Your task to perform on an android device: check out phone information Image 0: 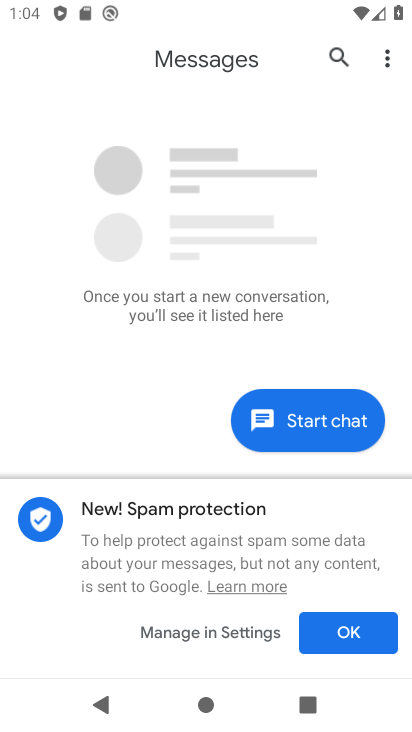
Step 0: press home button
Your task to perform on an android device: check out phone information Image 1: 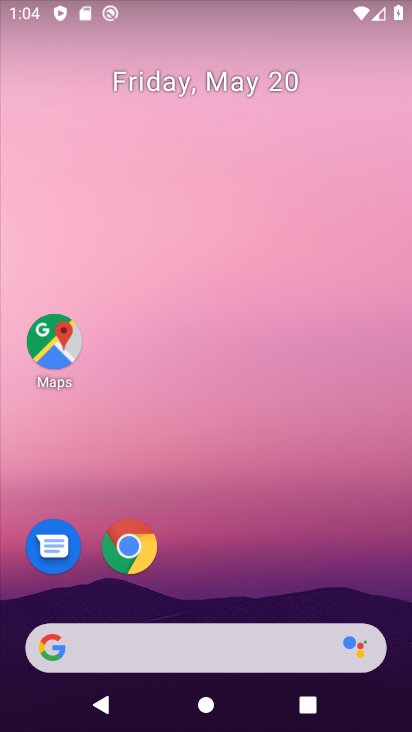
Step 1: drag from (88, 454) to (249, 112)
Your task to perform on an android device: check out phone information Image 2: 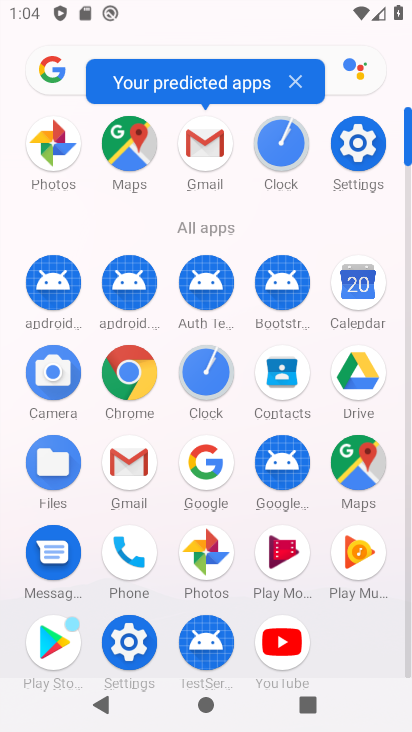
Step 2: click (154, 545)
Your task to perform on an android device: check out phone information Image 3: 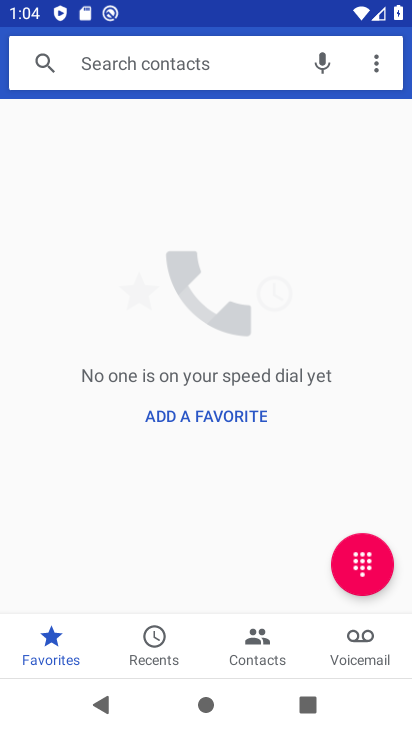
Step 3: click (368, 73)
Your task to perform on an android device: check out phone information Image 4: 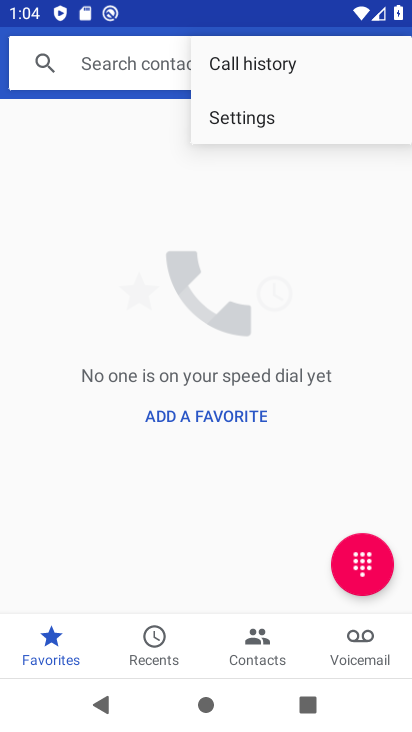
Step 4: click (366, 126)
Your task to perform on an android device: check out phone information Image 5: 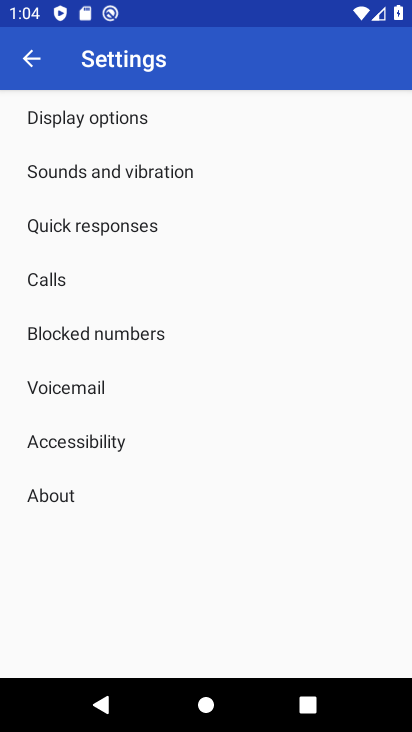
Step 5: task complete